Your task to perform on an android device: find photos in the google photos app Image 0: 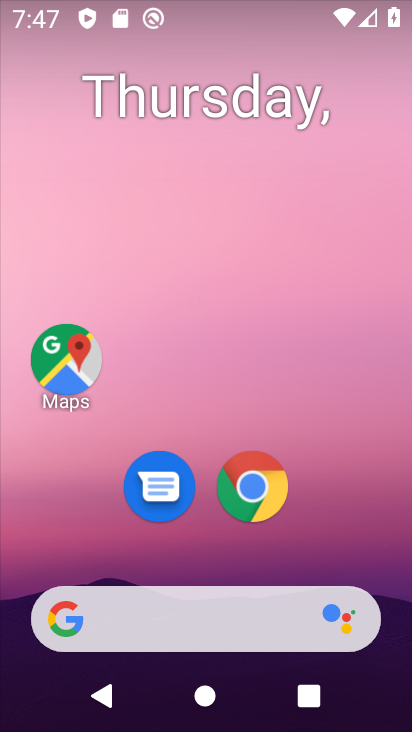
Step 0: drag from (184, 373) to (193, 174)
Your task to perform on an android device: find photos in the google photos app Image 1: 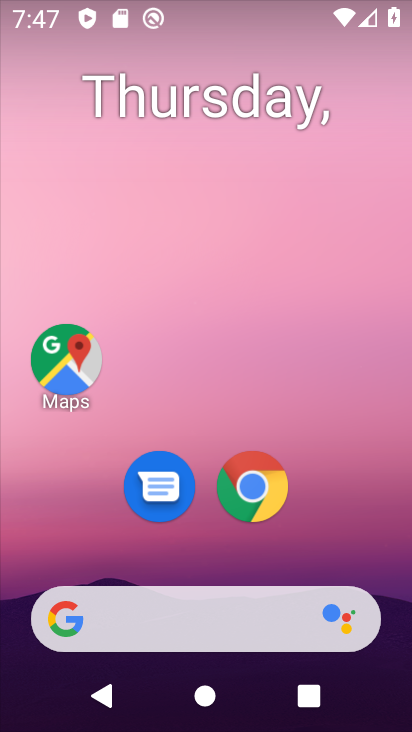
Step 1: drag from (193, 657) to (211, 162)
Your task to perform on an android device: find photos in the google photos app Image 2: 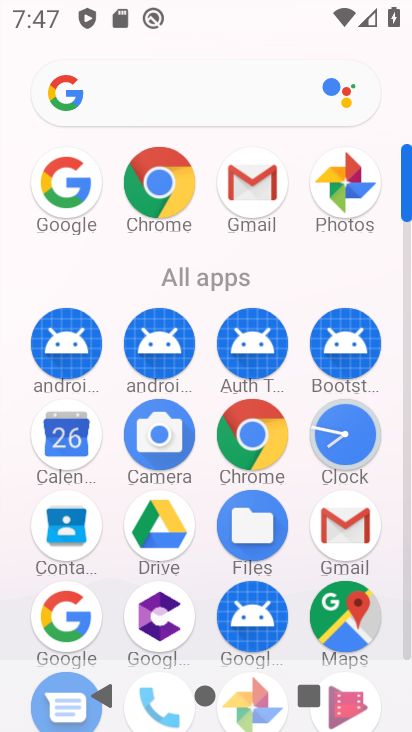
Step 2: drag from (252, 572) to (297, 132)
Your task to perform on an android device: find photos in the google photos app Image 3: 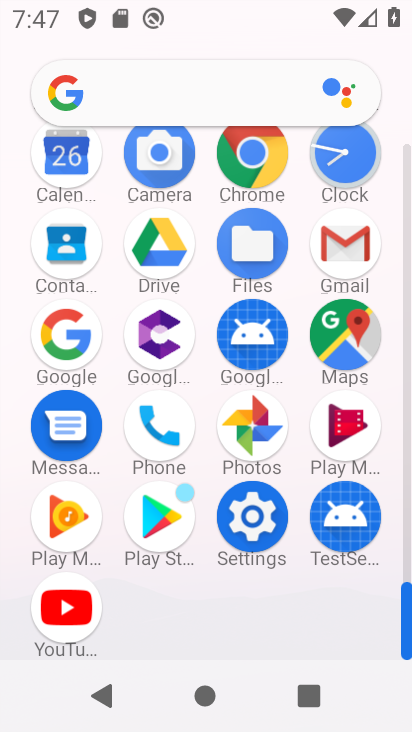
Step 3: click (266, 440)
Your task to perform on an android device: find photos in the google photos app Image 4: 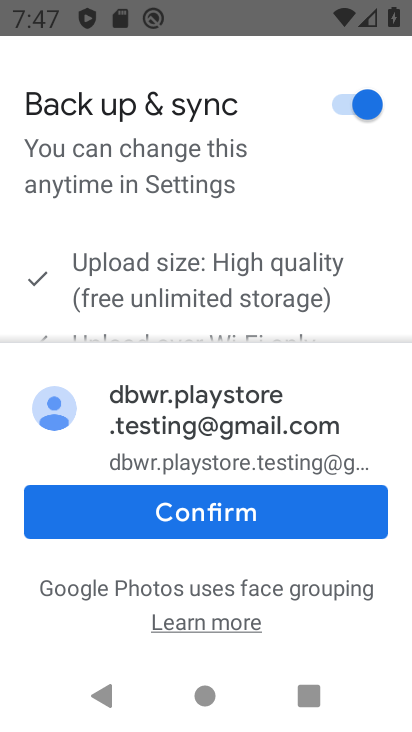
Step 4: click (223, 520)
Your task to perform on an android device: find photos in the google photos app Image 5: 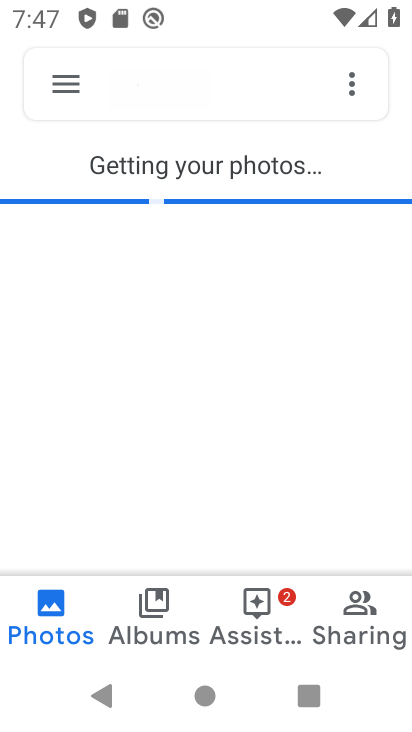
Step 5: click (70, 86)
Your task to perform on an android device: find photos in the google photos app Image 6: 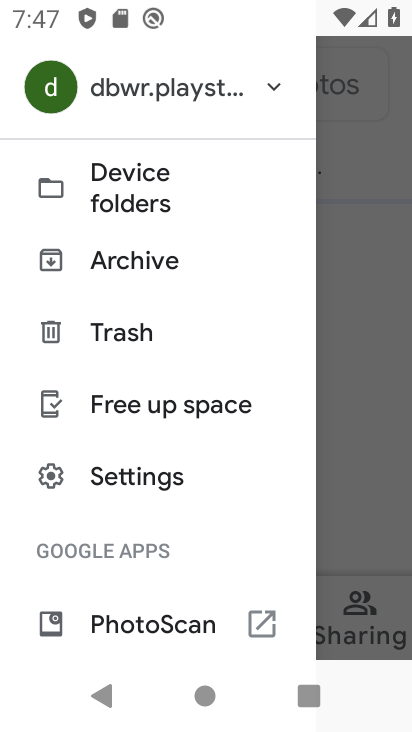
Step 6: drag from (157, 418) to (203, 126)
Your task to perform on an android device: find photos in the google photos app Image 7: 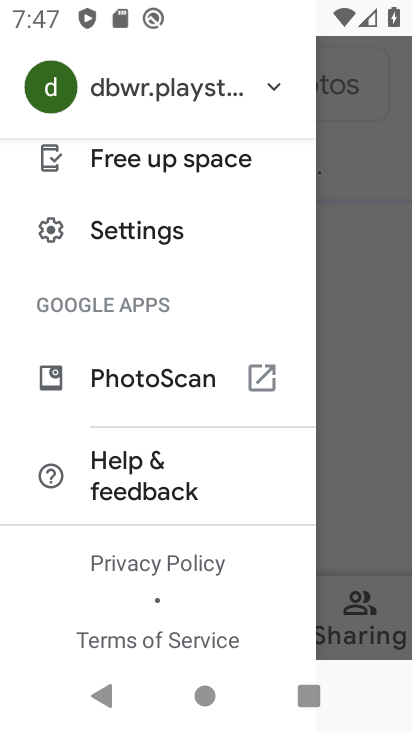
Step 7: click (148, 231)
Your task to perform on an android device: find photos in the google photos app Image 8: 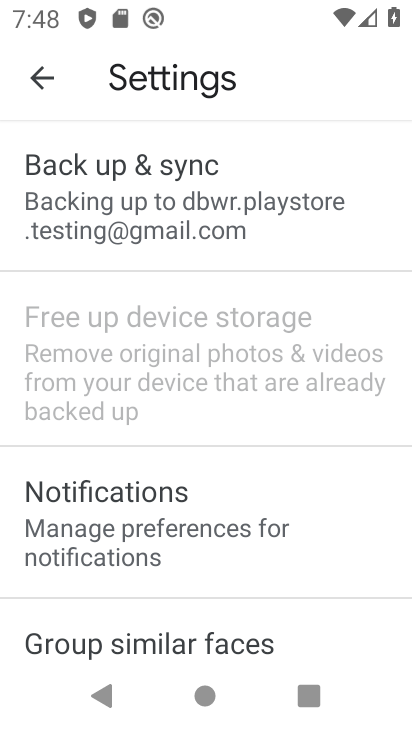
Step 8: click (52, 76)
Your task to perform on an android device: find photos in the google photos app Image 9: 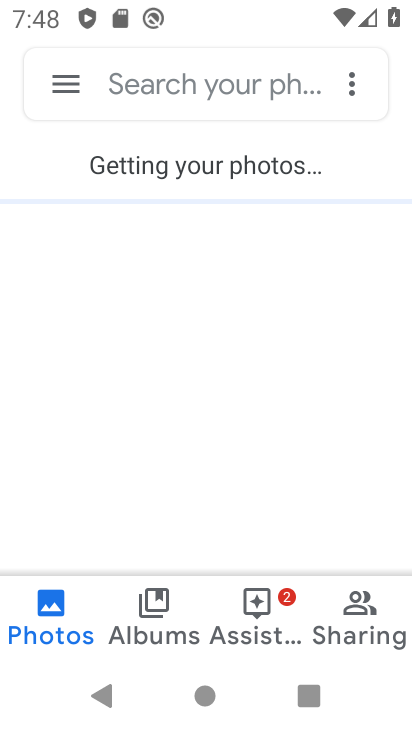
Step 9: task complete